Your task to perform on an android device: Open calendar and show me the third week of next month Image 0: 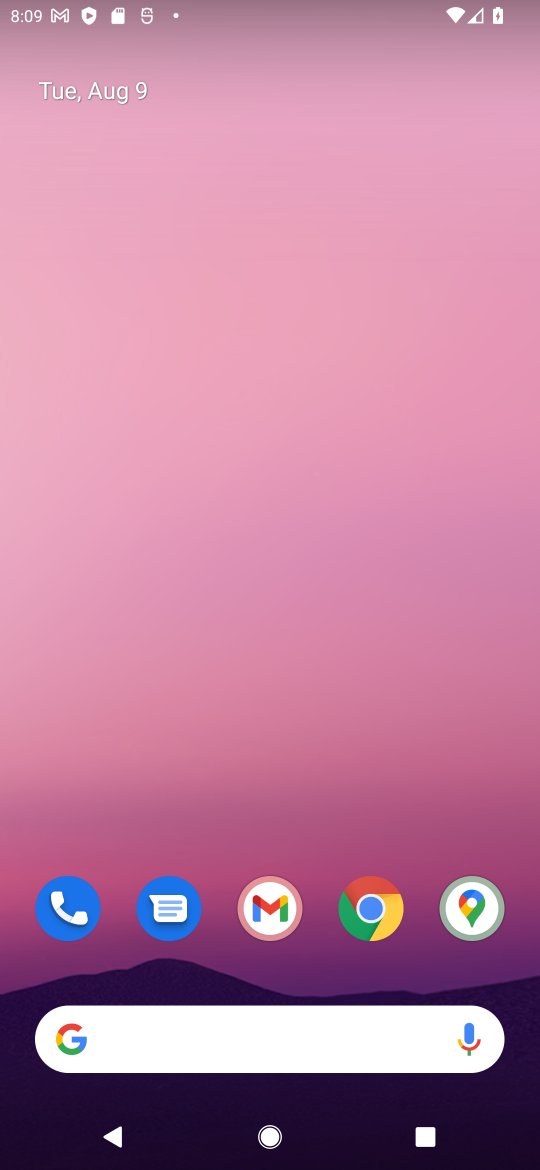
Step 0: drag from (316, 959) to (291, 2)
Your task to perform on an android device: Open calendar and show me the third week of next month Image 1: 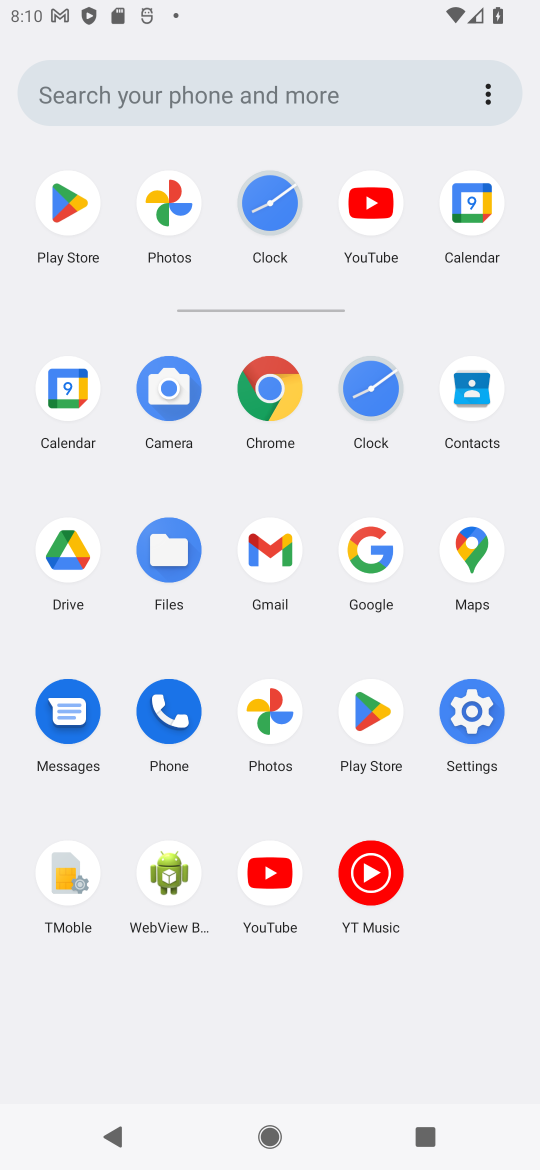
Step 1: click (56, 398)
Your task to perform on an android device: Open calendar and show me the third week of next month Image 2: 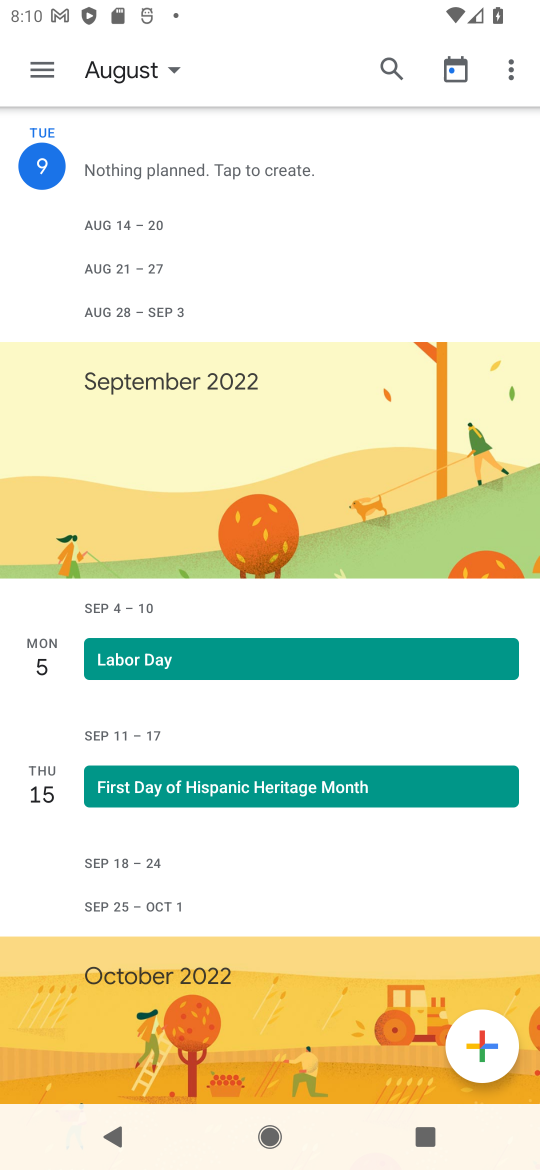
Step 2: click (163, 63)
Your task to perform on an android device: Open calendar and show me the third week of next month Image 3: 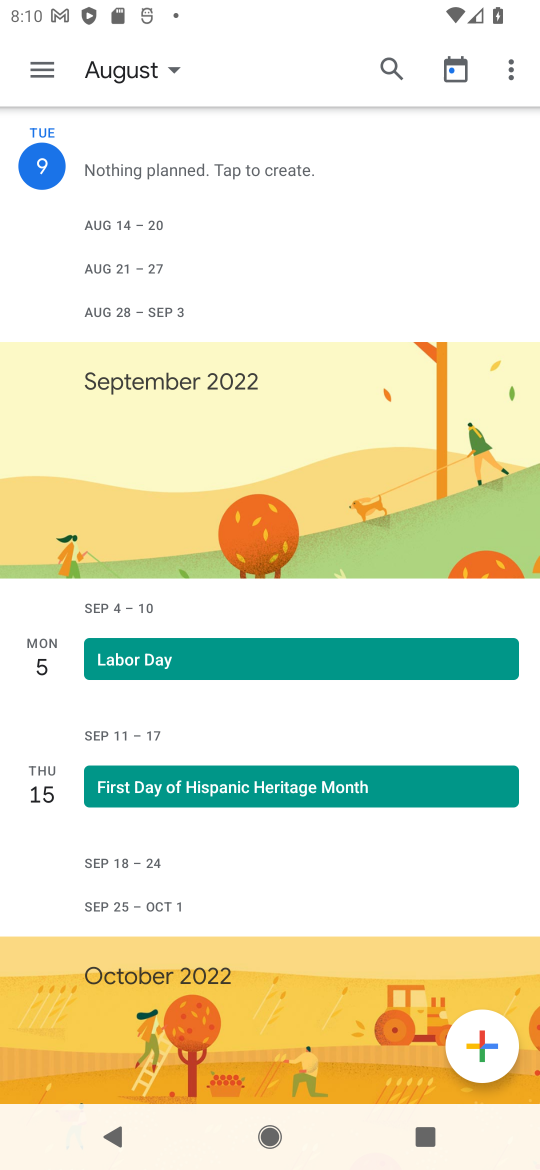
Step 3: click (166, 69)
Your task to perform on an android device: Open calendar and show me the third week of next month Image 4: 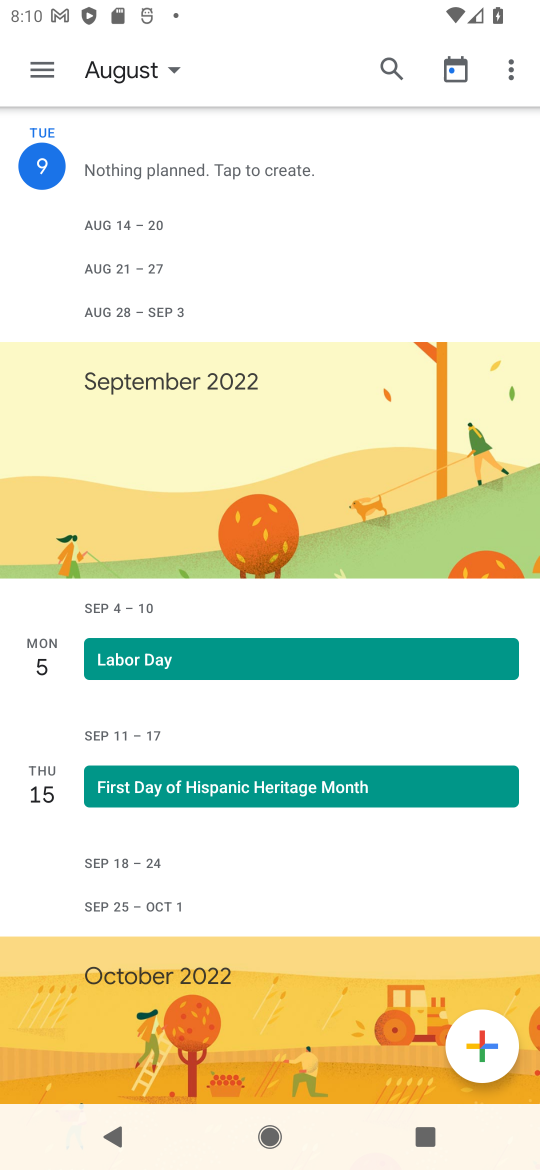
Step 4: click (168, 64)
Your task to perform on an android device: Open calendar and show me the third week of next month Image 5: 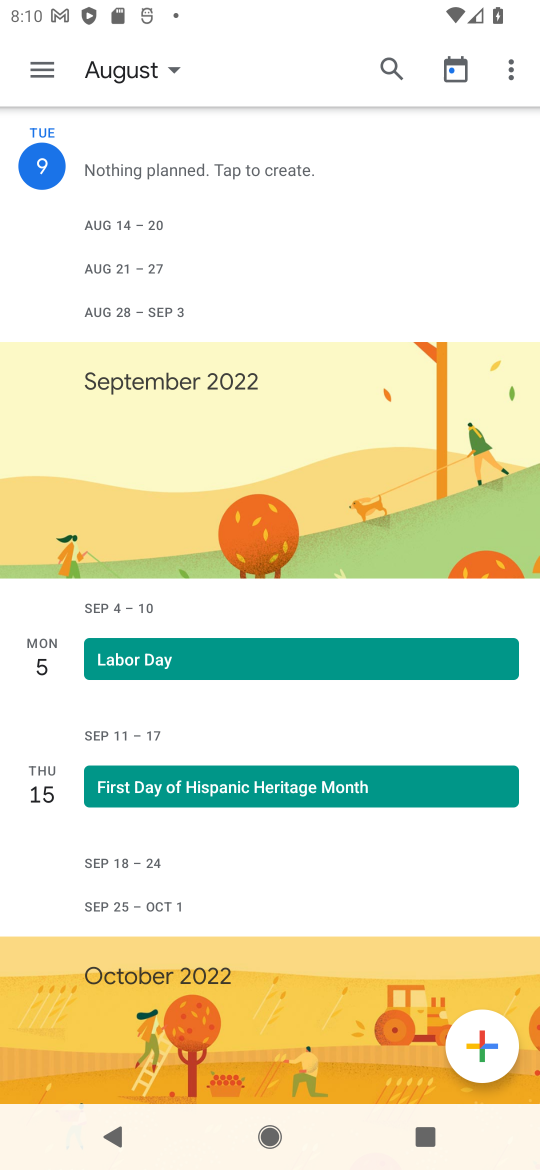
Step 5: click (168, 69)
Your task to perform on an android device: Open calendar and show me the third week of next month Image 6: 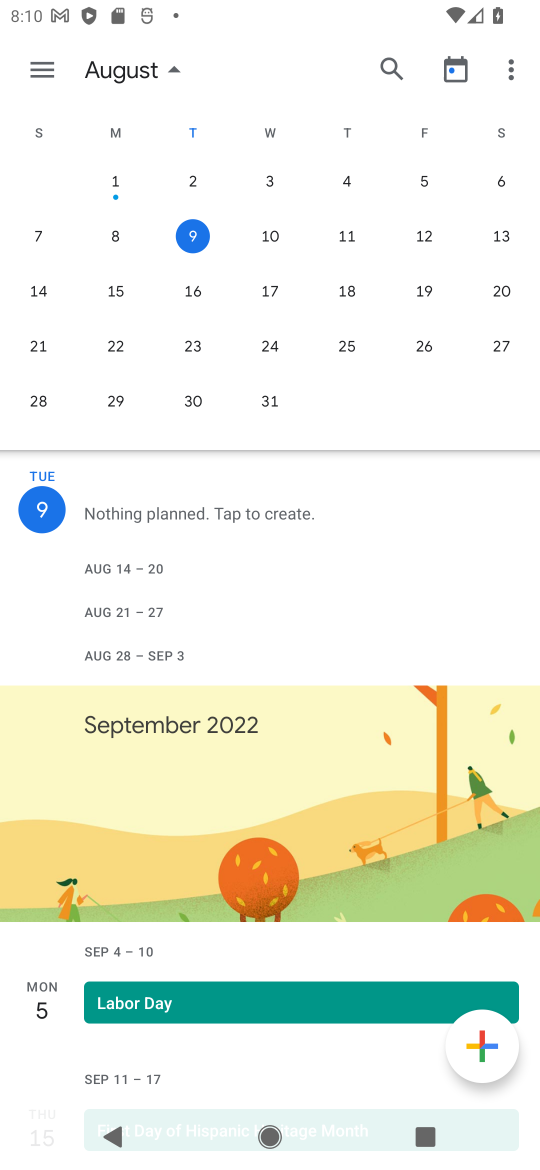
Step 6: drag from (503, 283) to (27, 282)
Your task to perform on an android device: Open calendar and show me the third week of next month Image 7: 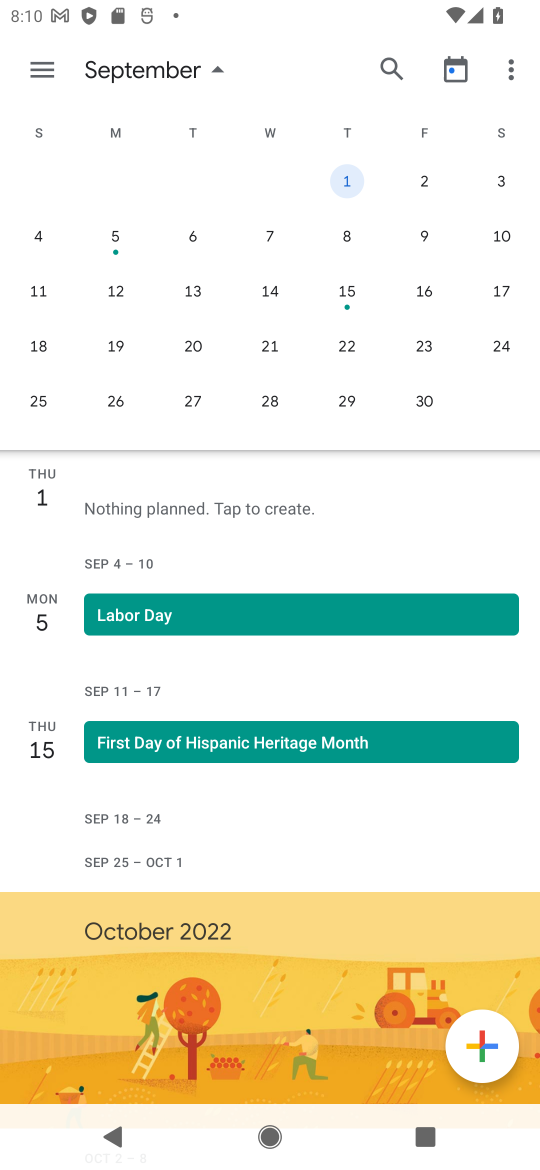
Step 7: click (117, 333)
Your task to perform on an android device: Open calendar and show me the third week of next month Image 8: 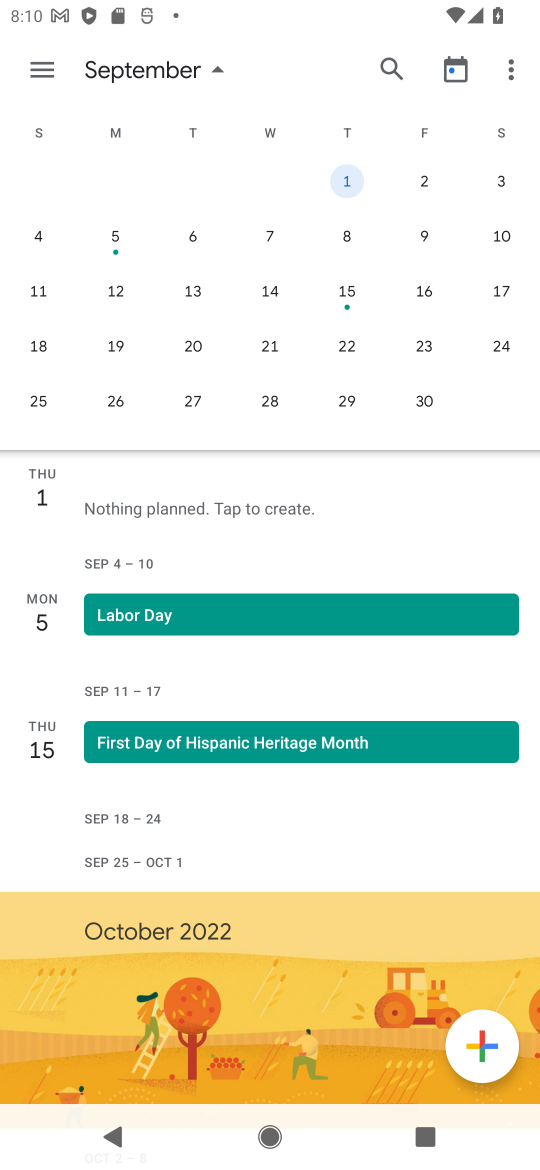
Step 8: click (123, 341)
Your task to perform on an android device: Open calendar and show me the third week of next month Image 9: 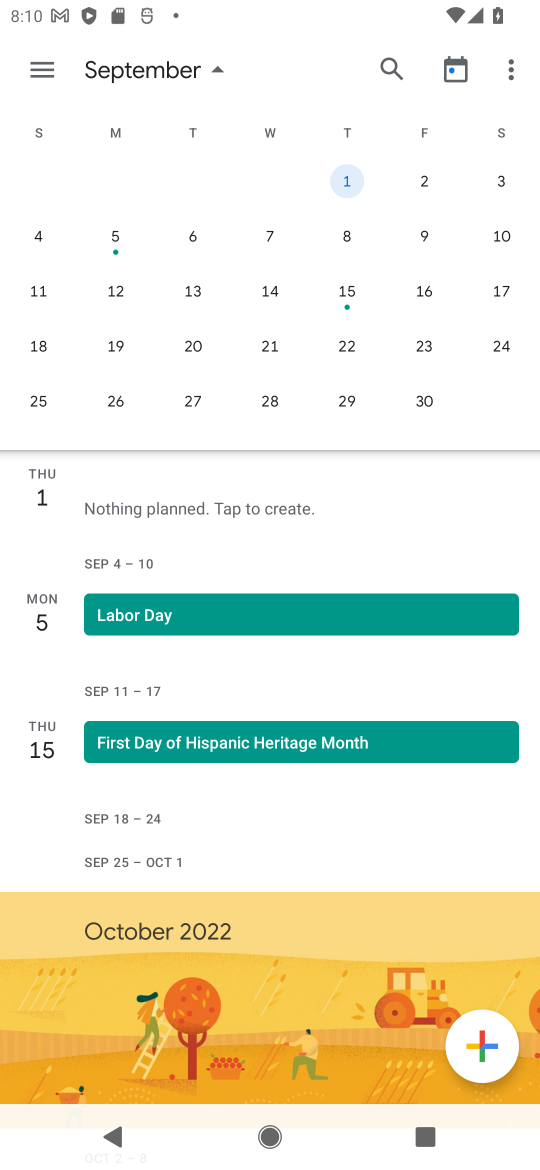
Step 9: click (124, 339)
Your task to perform on an android device: Open calendar and show me the third week of next month Image 10: 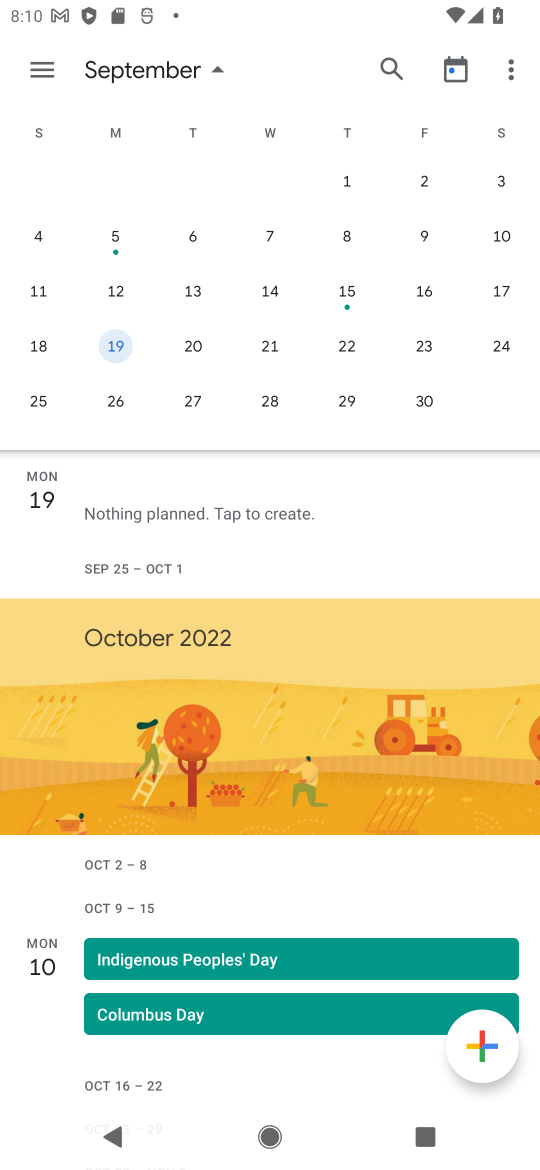
Step 10: click (36, 68)
Your task to perform on an android device: Open calendar and show me the third week of next month Image 11: 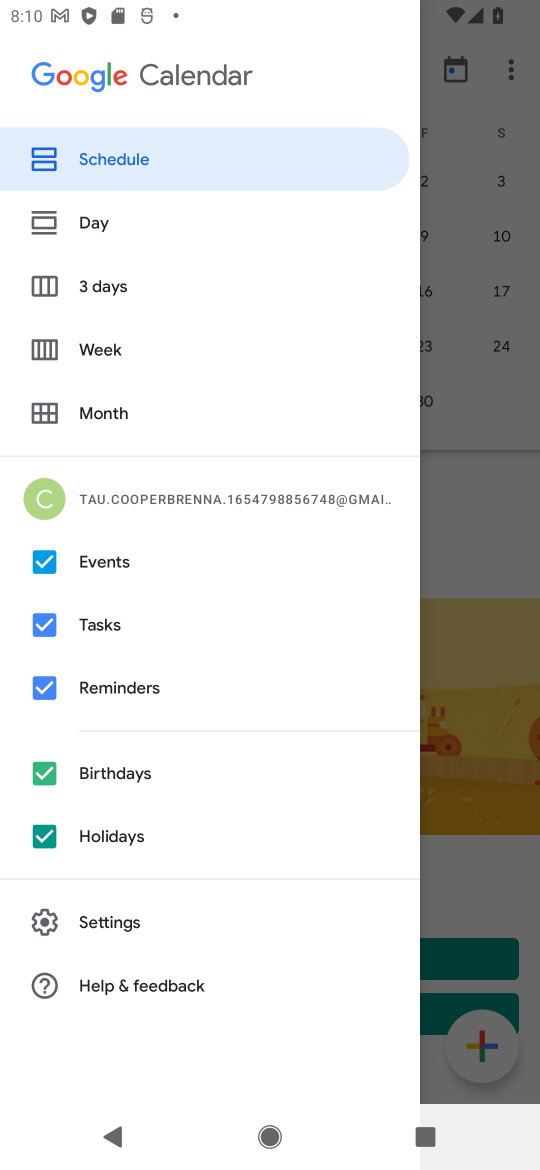
Step 11: click (119, 347)
Your task to perform on an android device: Open calendar and show me the third week of next month Image 12: 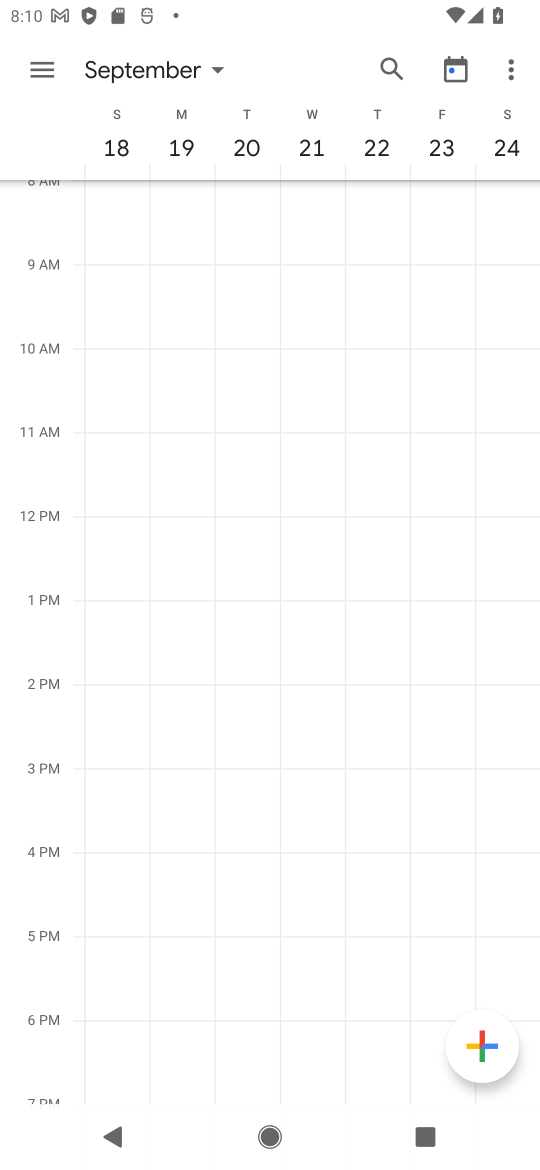
Step 12: task complete